Your task to perform on an android device: Open settings on Google Maps Image 0: 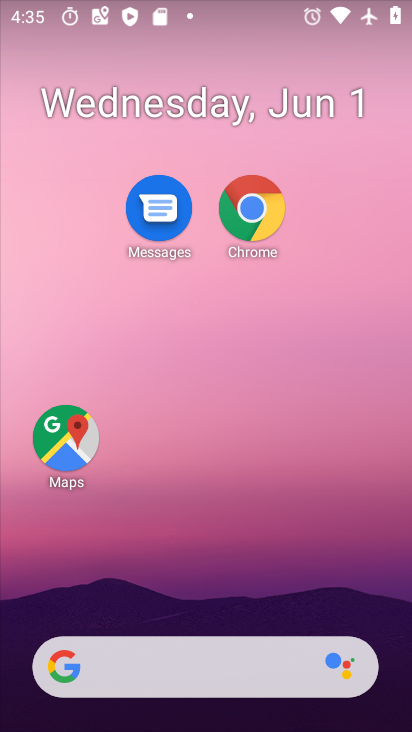
Step 0: click (87, 442)
Your task to perform on an android device: Open settings on Google Maps Image 1: 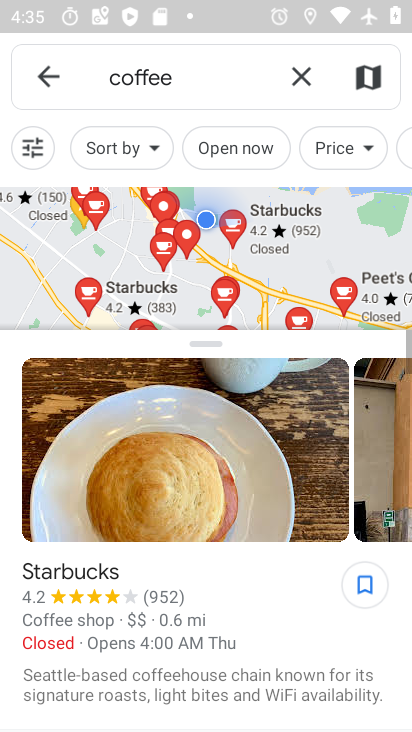
Step 1: click (53, 83)
Your task to perform on an android device: Open settings on Google Maps Image 2: 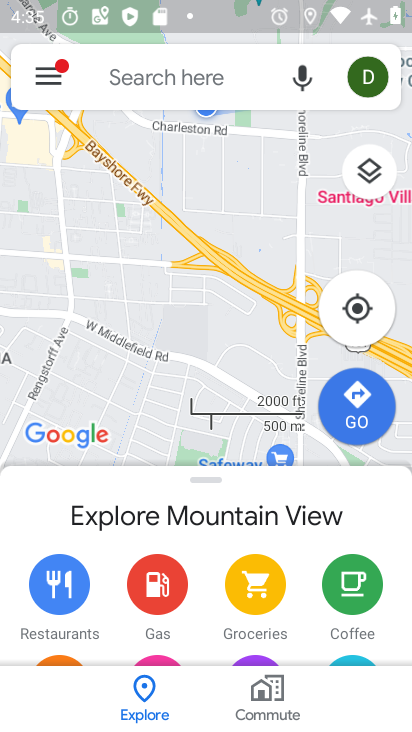
Step 2: click (53, 83)
Your task to perform on an android device: Open settings on Google Maps Image 3: 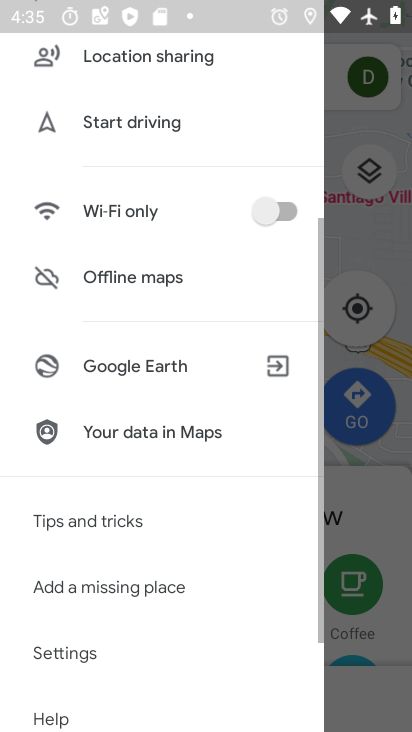
Step 3: drag from (162, 659) to (135, 221)
Your task to perform on an android device: Open settings on Google Maps Image 4: 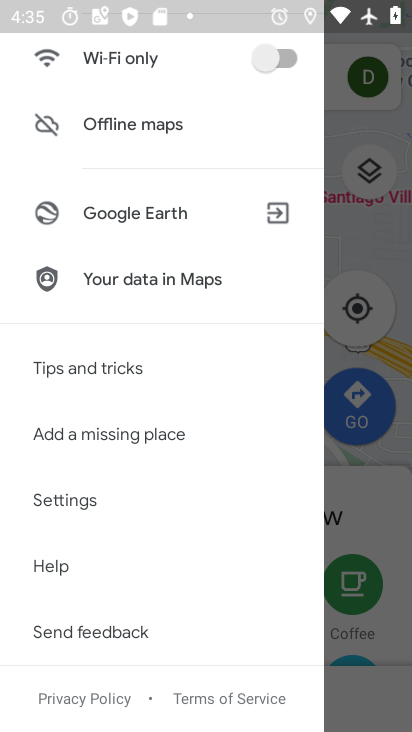
Step 4: click (84, 508)
Your task to perform on an android device: Open settings on Google Maps Image 5: 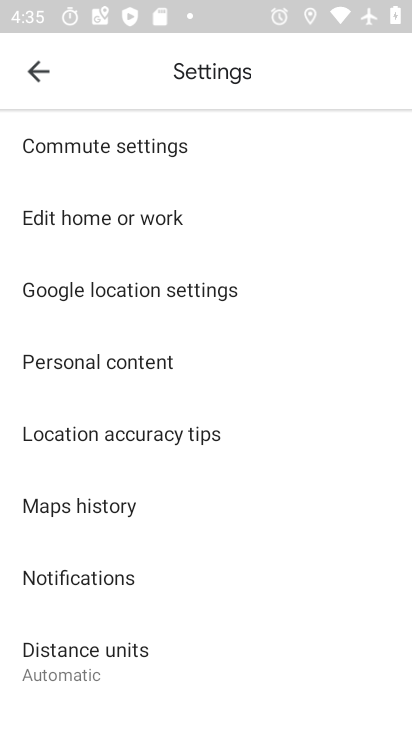
Step 5: task complete